Your task to perform on an android device: set an alarm Image 0: 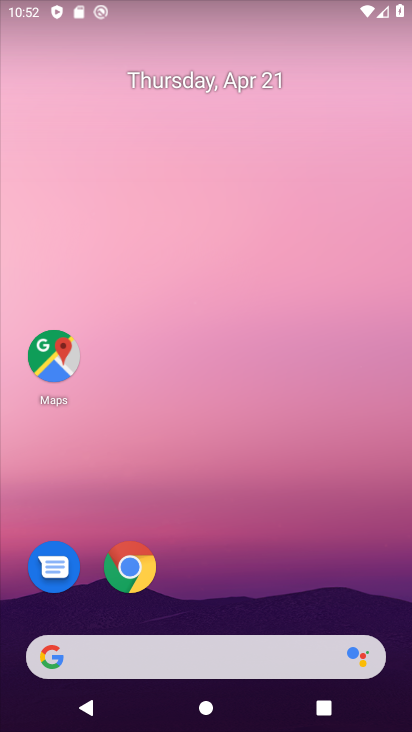
Step 0: drag from (217, 570) to (283, 41)
Your task to perform on an android device: set an alarm Image 1: 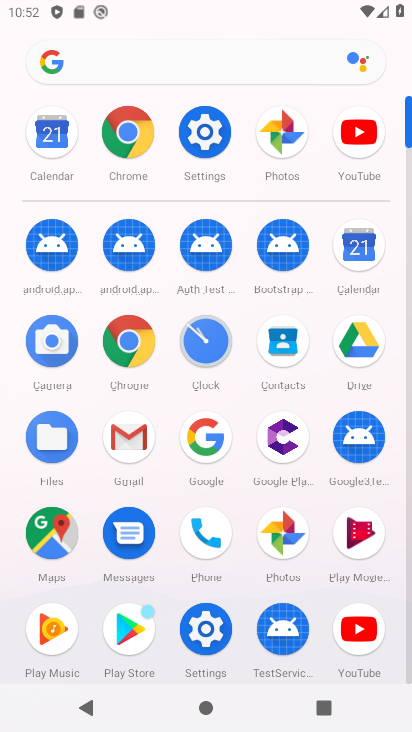
Step 1: click (215, 337)
Your task to perform on an android device: set an alarm Image 2: 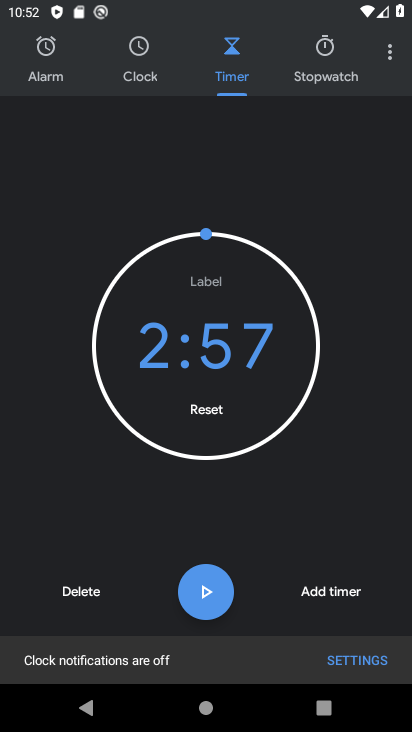
Step 2: click (47, 71)
Your task to perform on an android device: set an alarm Image 3: 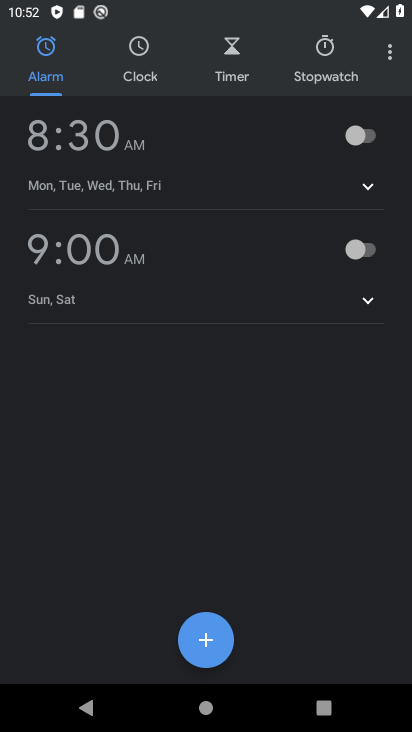
Step 3: click (369, 138)
Your task to perform on an android device: set an alarm Image 4: 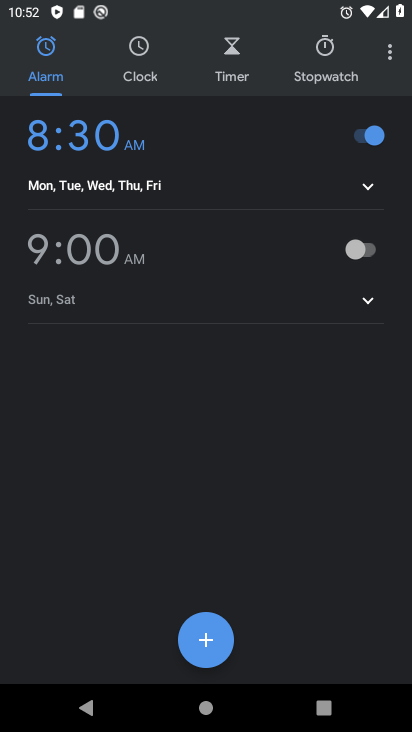
Step 4: task complete